Your task to perform on an android device: turn on priority inbox in the gmail app Image 0: 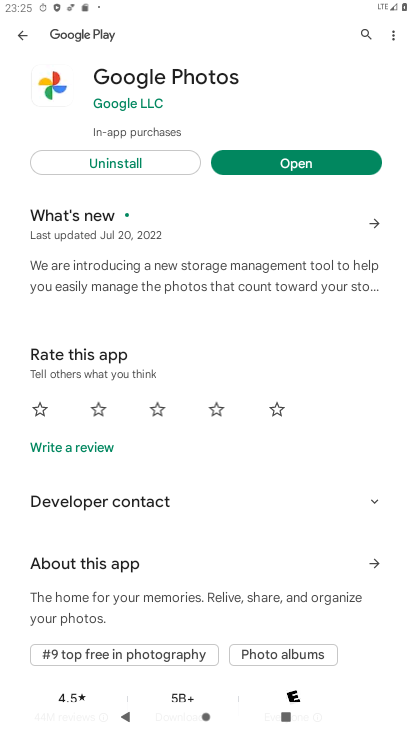
Step 0: press back button
Your task to perform on an android device: turn on priority inbox in the gmail app Image 1: 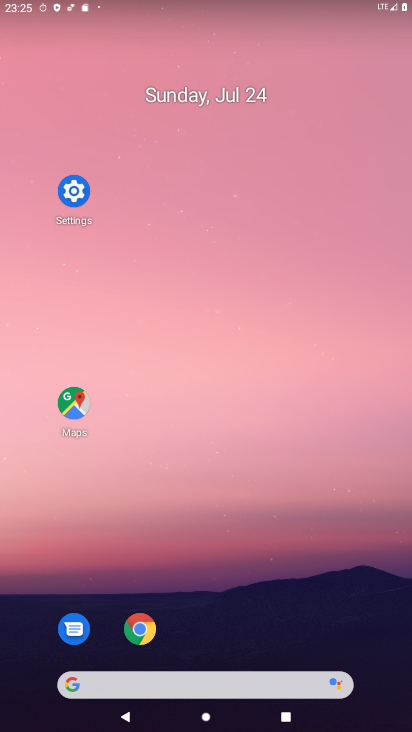
Step 1: drag from (250, 651) to (272, 391)
Your task to perform on an android device: turn on priority inbox in the gmail app Image 2: 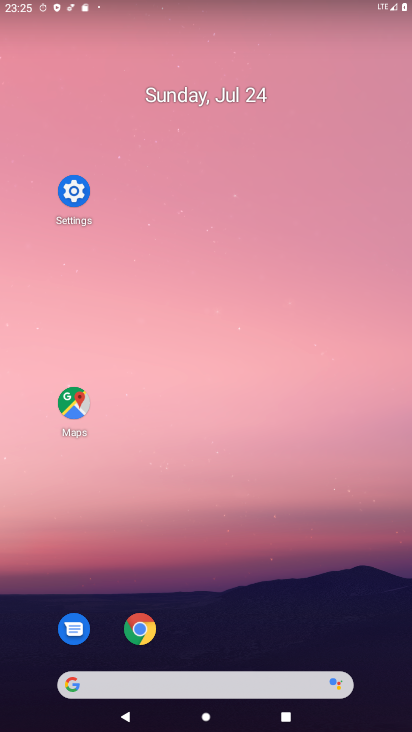
Step 2: click (209, 349)
Your task to perform on an android device: turn on priority inbox in the gmail app Image 3: 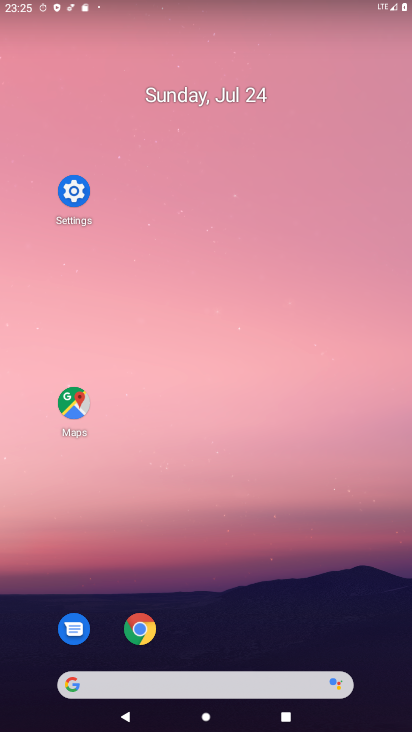
Step 3: drag from (232, 595) to (229, 250)
Your task to perform on an android device: turn on priority inbox in the gmail app Image 4: 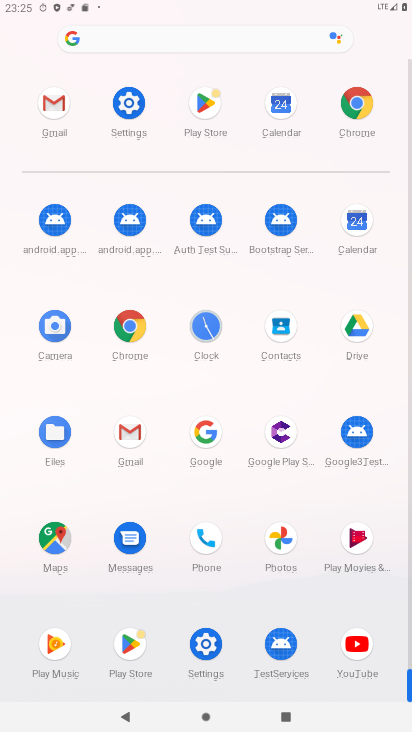
Step 4: drag from (184, 645) to (227, 319)
Your task to perform on an android device: turn on priority inbox in the gmail app Image 5: 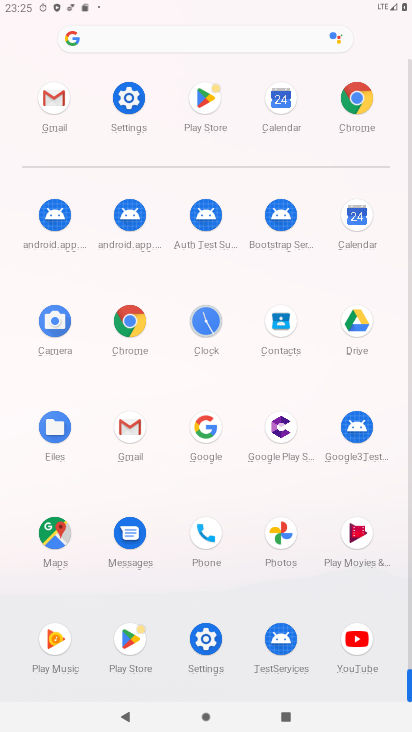
Step 5: click (118, 427)
Your task to perform on an android device: turn on priority inbox in the gmail app Image 6: 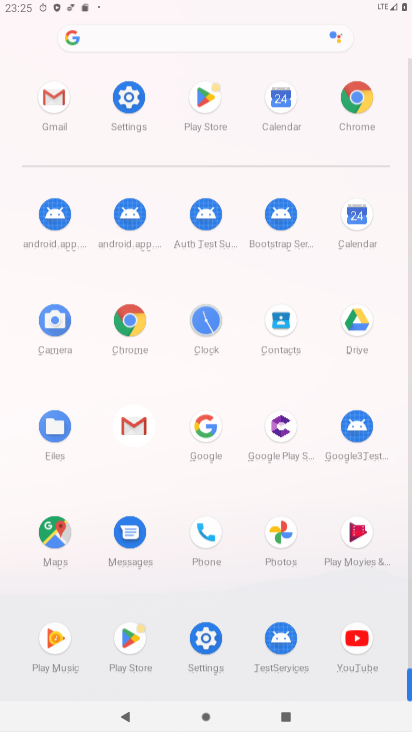
Step 6: click (124, 430)
Your task to perform on an android device: turn on priority inbox in the gmail app Image 7: 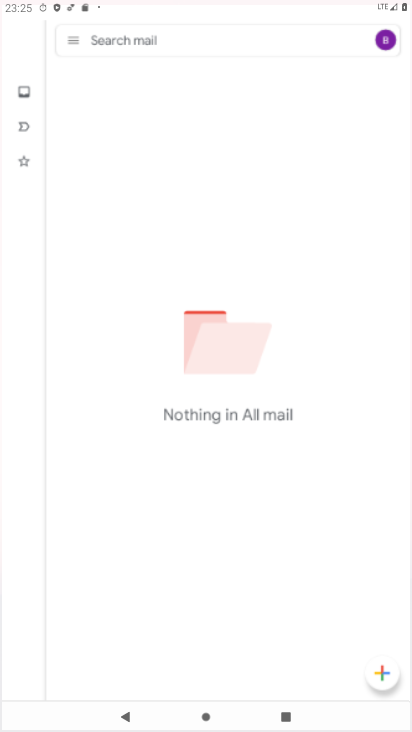
Step 7: click (137, 431)
Your task to perform on an android device: turn on priority inbox in the gmail app Image 8: 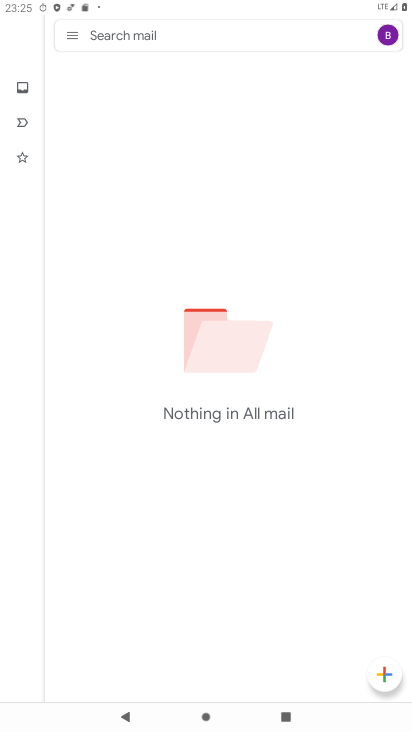
Step 8: click (79, 37)
Your task to perform on an android device: turn on priority inbox in the gmail app Image 9: 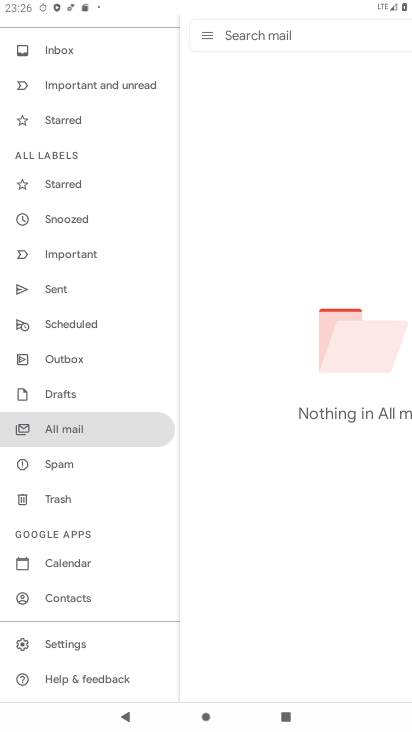
Step 9: click (57, 635)
Your task to perform on an android device: turn on priority inbox in the gmail app Image 10: 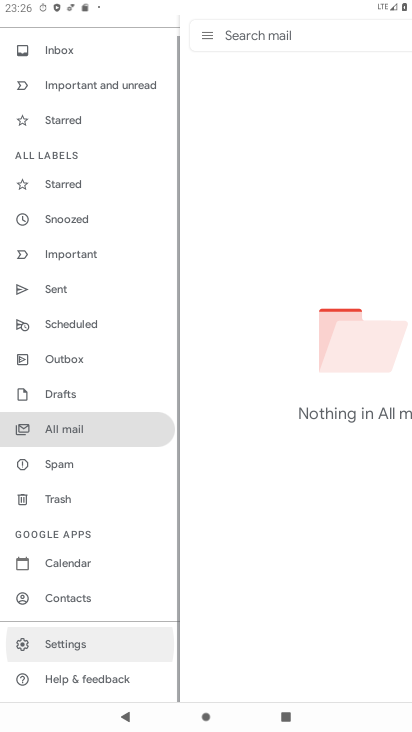
Step 10: click (57, 635)
Your task to perform on an android device: turn on priority inbox in the gmail app Image 11: 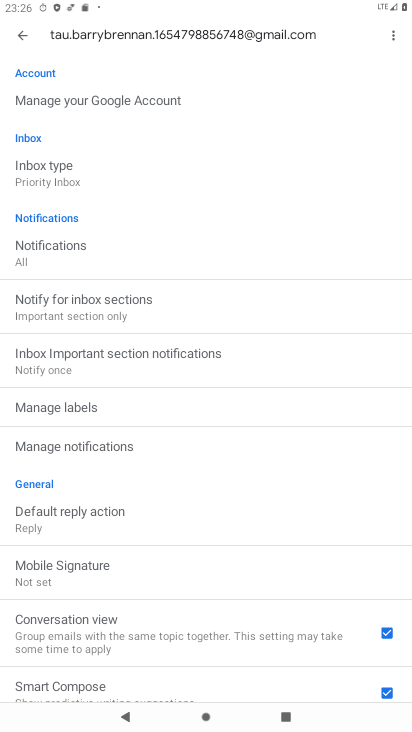
Step 11: task complete